Your task to perform on an android device: open app "Move to iOS" Image 0: 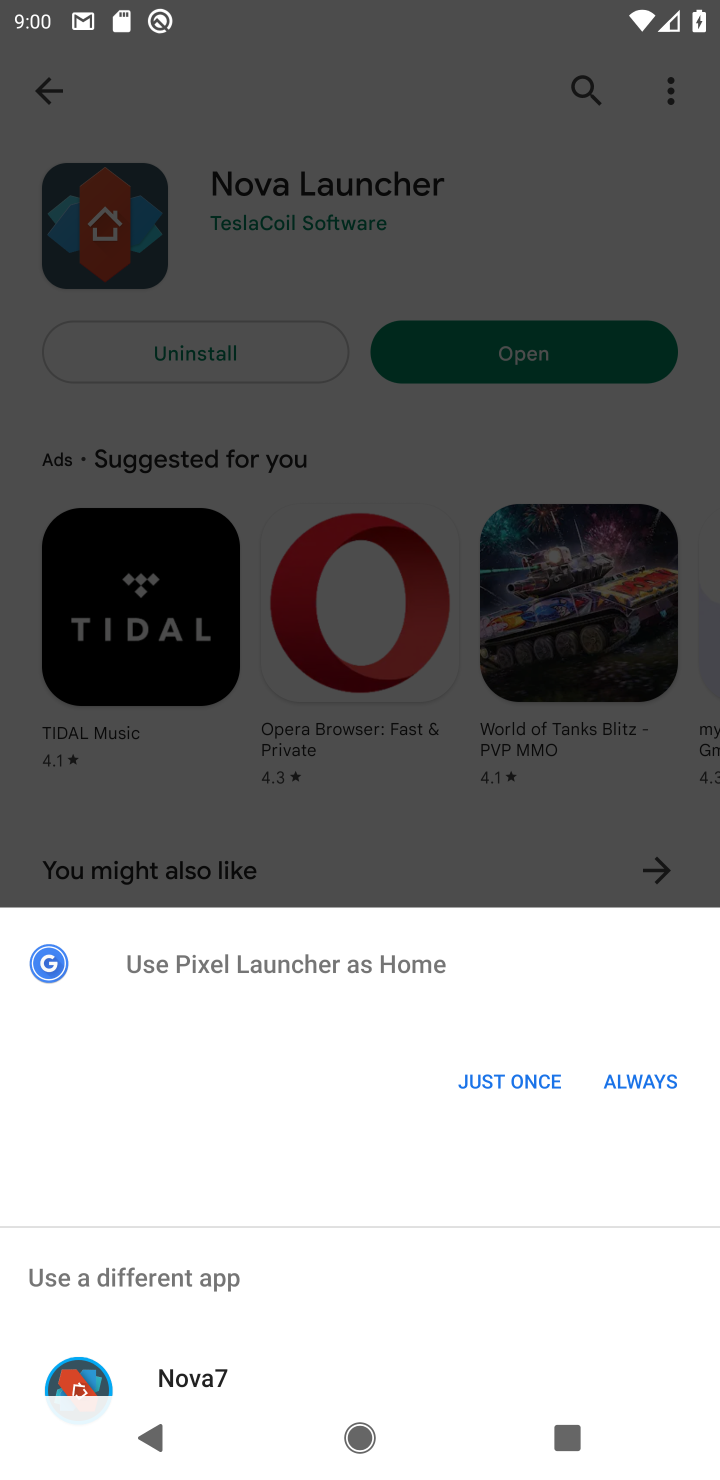
Step 0: press home button
Your task to perform on an android device: open app "Move to iOS" Image 1: 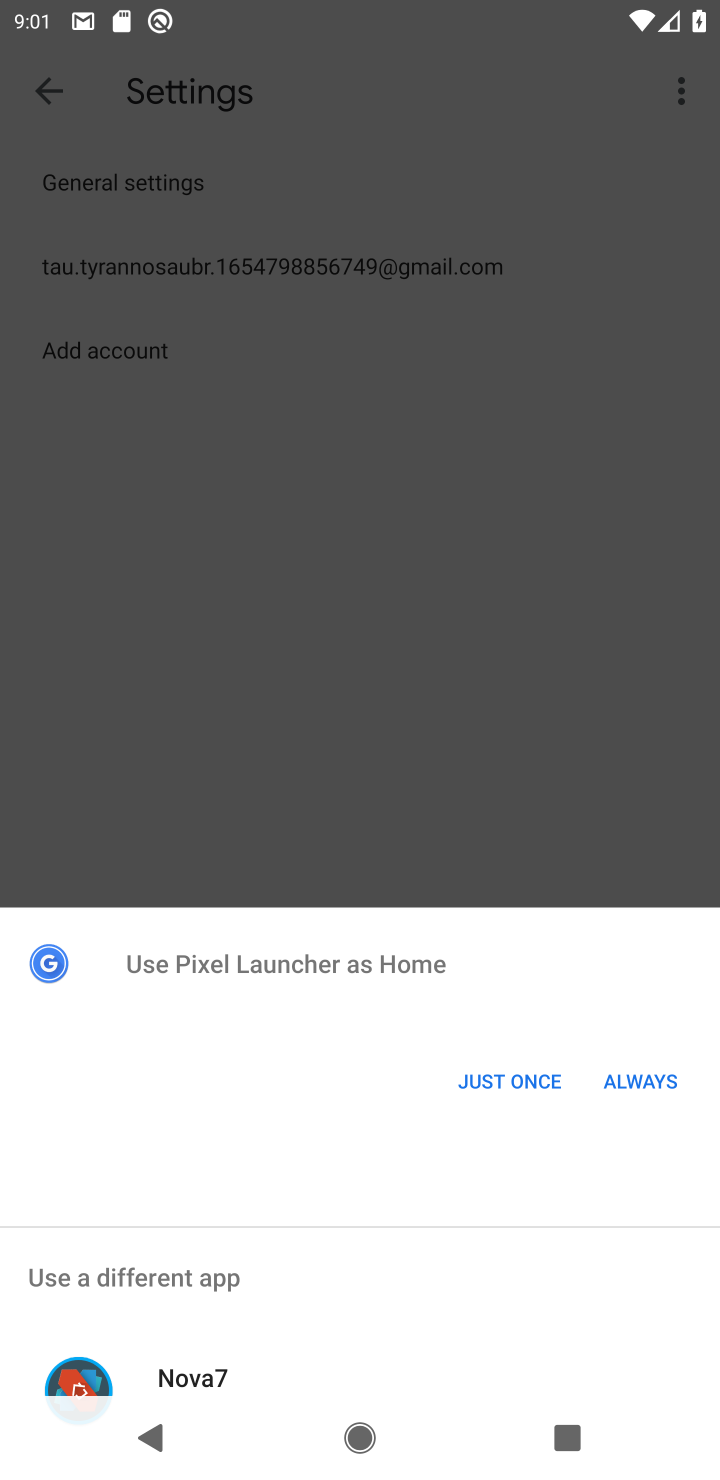
Step 1: press home button
Your task to perform on an android device: open app "Move to iOS" Image 2: 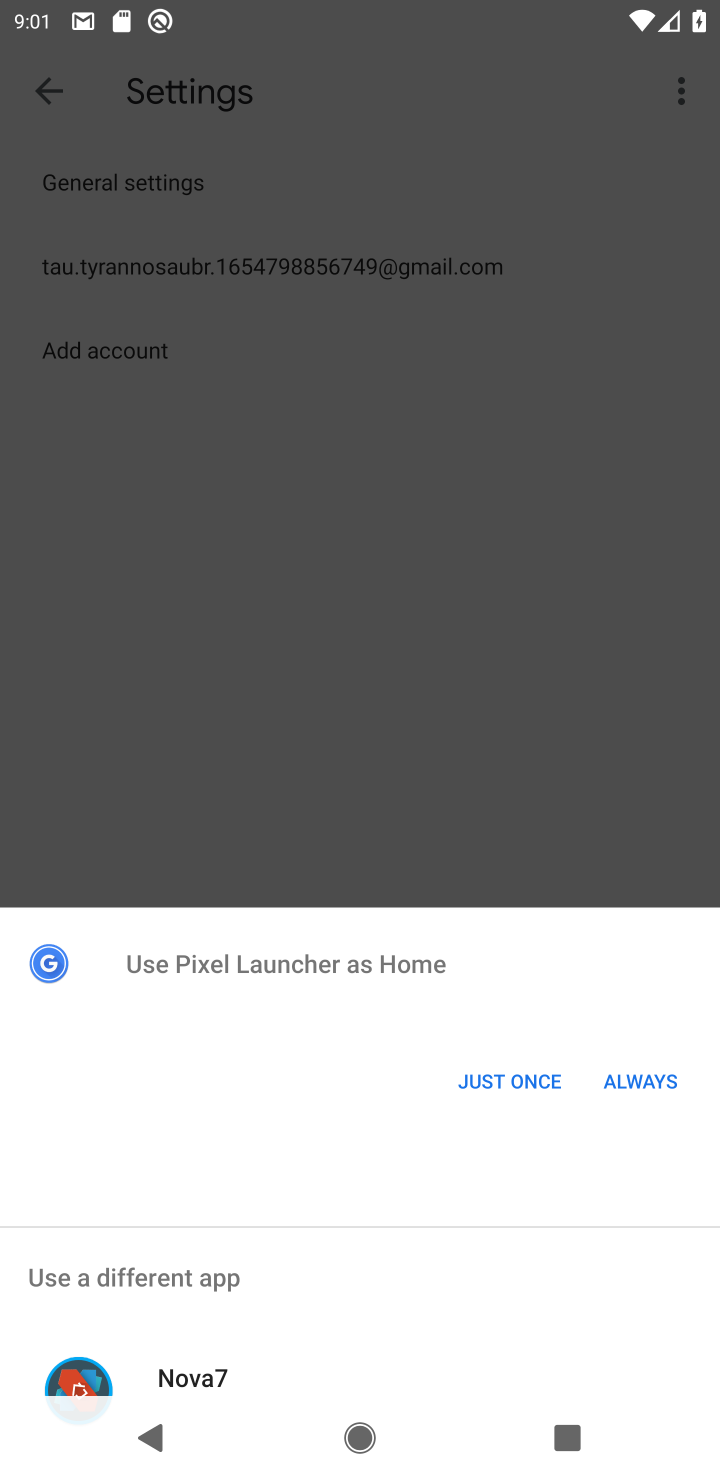
Step 2: press home button
Your task to perform on an android device: open app "Move to iOS" Image 3: 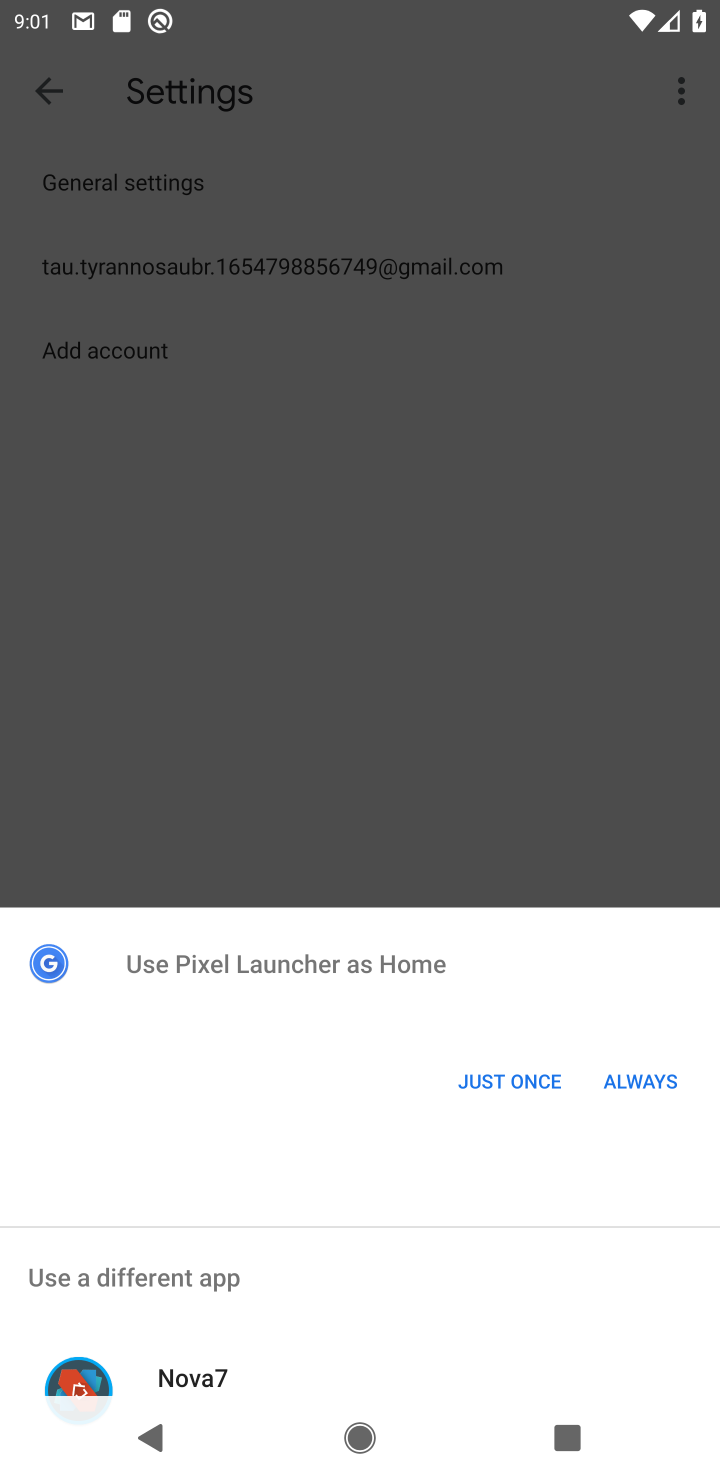
Step 3: press back button
Your task to perform on an android device: open app "Move to iOS" Image 4: 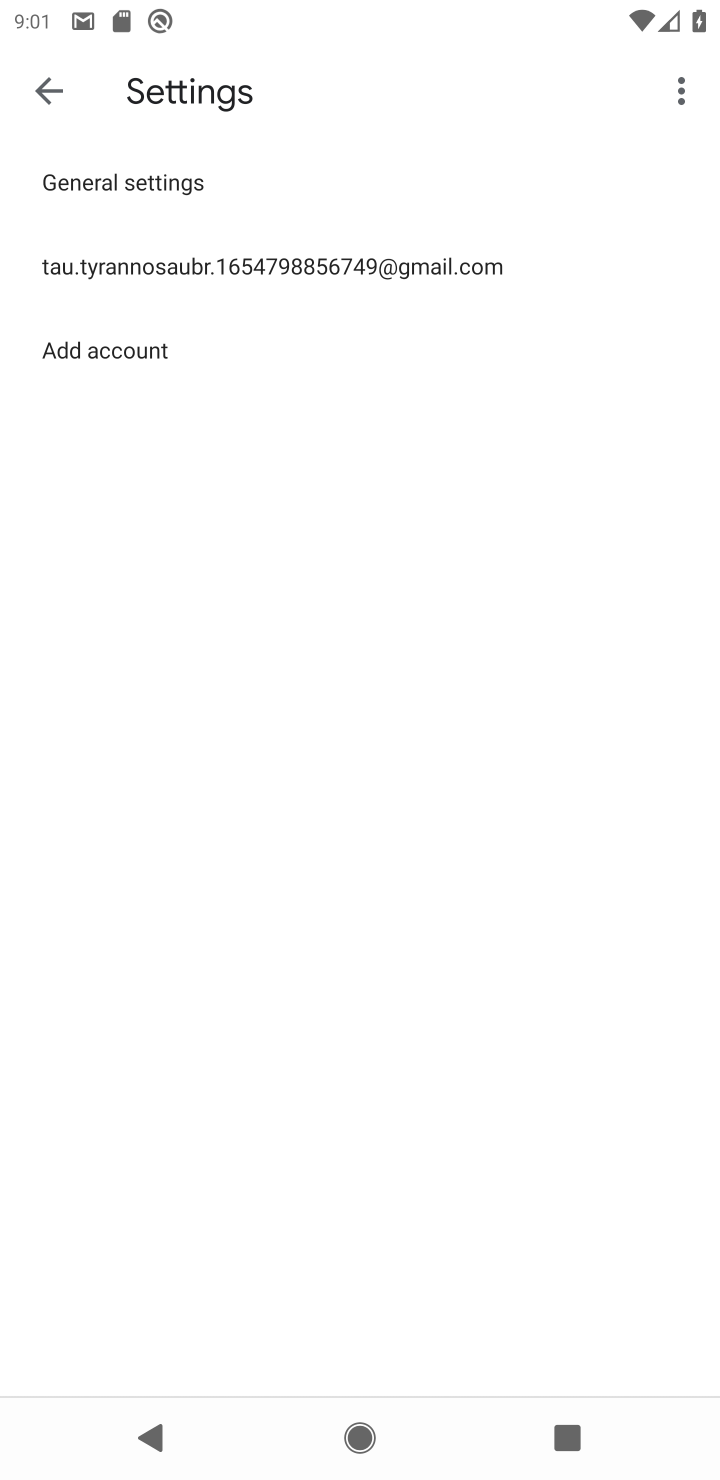
Step 4: press home button
Your task to perform on an android device: open app "Move to iOS" Image 5: 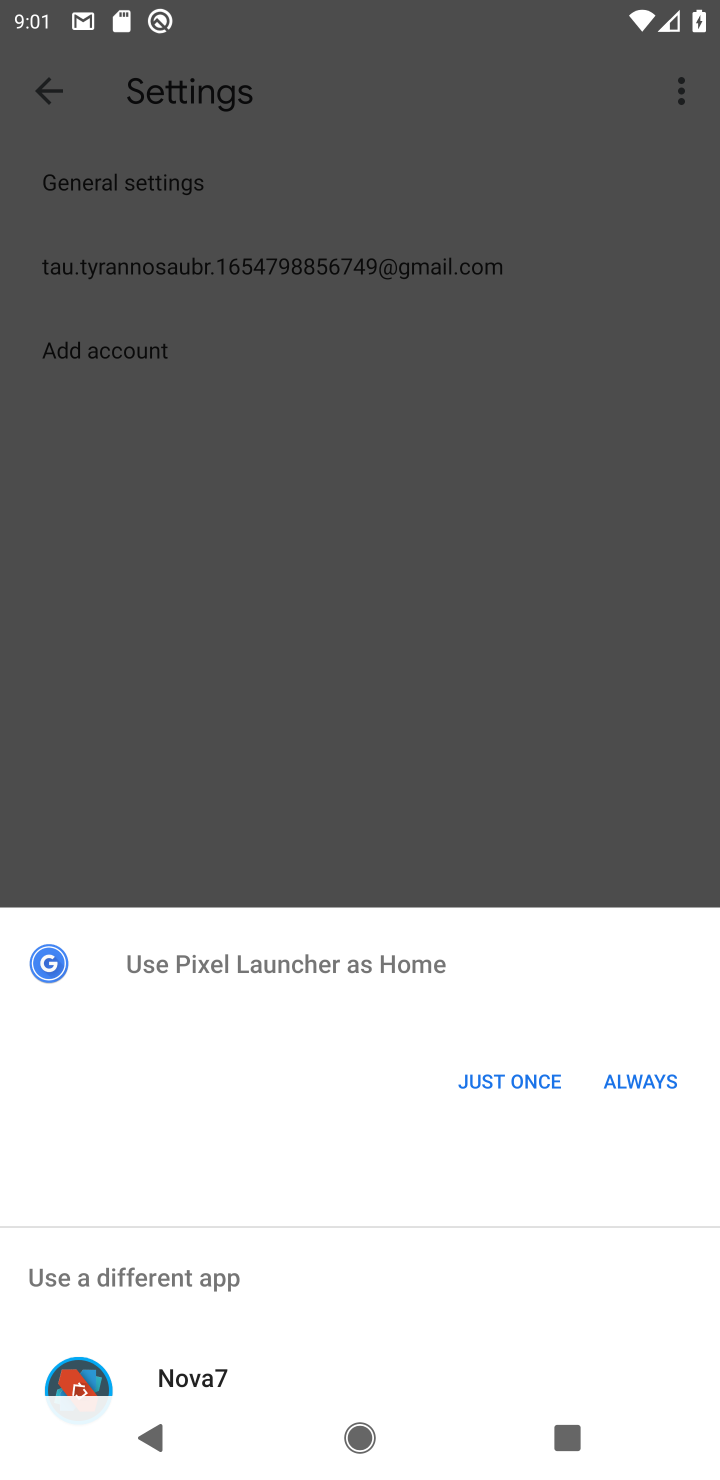
Step 5: press back button
Your task to perform on an android device: open app "Move to iOS" Image 6: 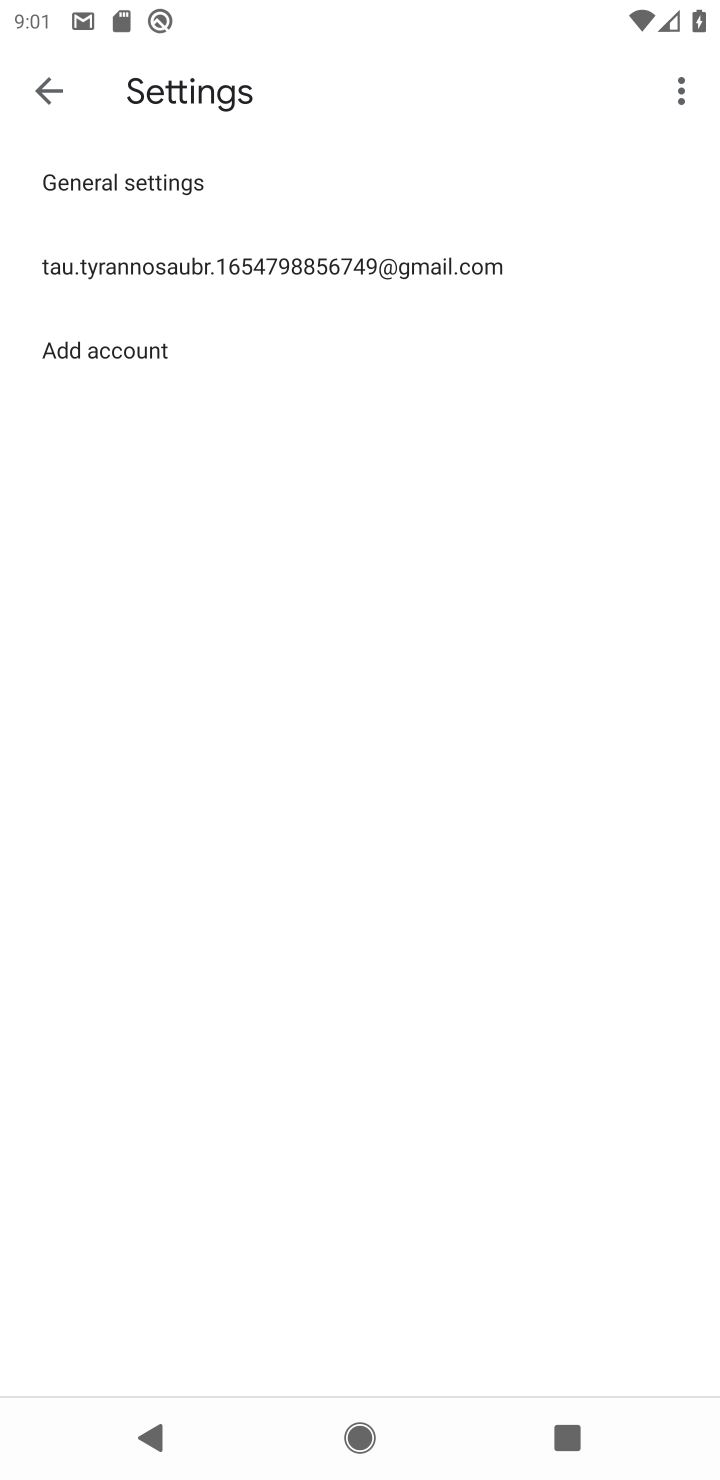
Step 6: press back button
Your task to perform on an android device: open app "Move to iOS" Image 7: 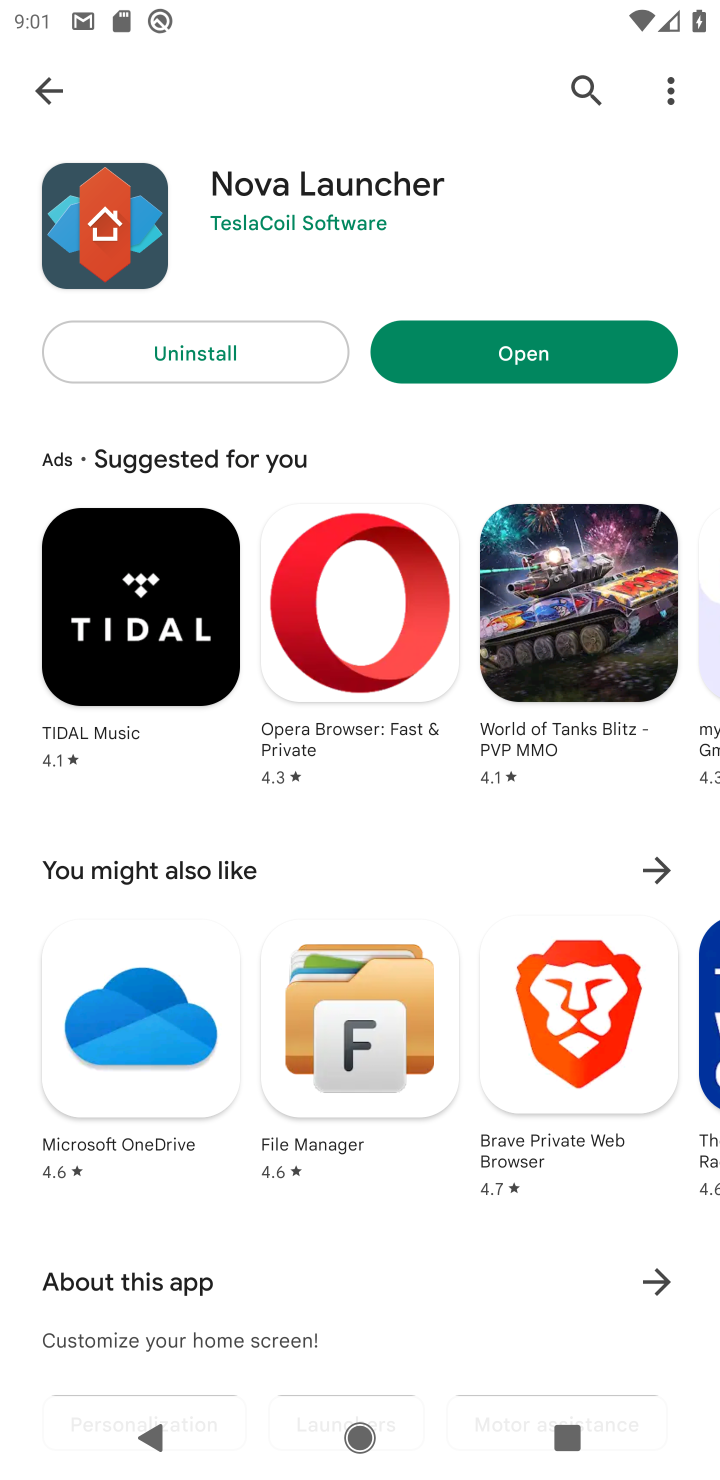
Step 7: press back button
Your task to perform on an android device: open app "Move to iOS" Image 8: 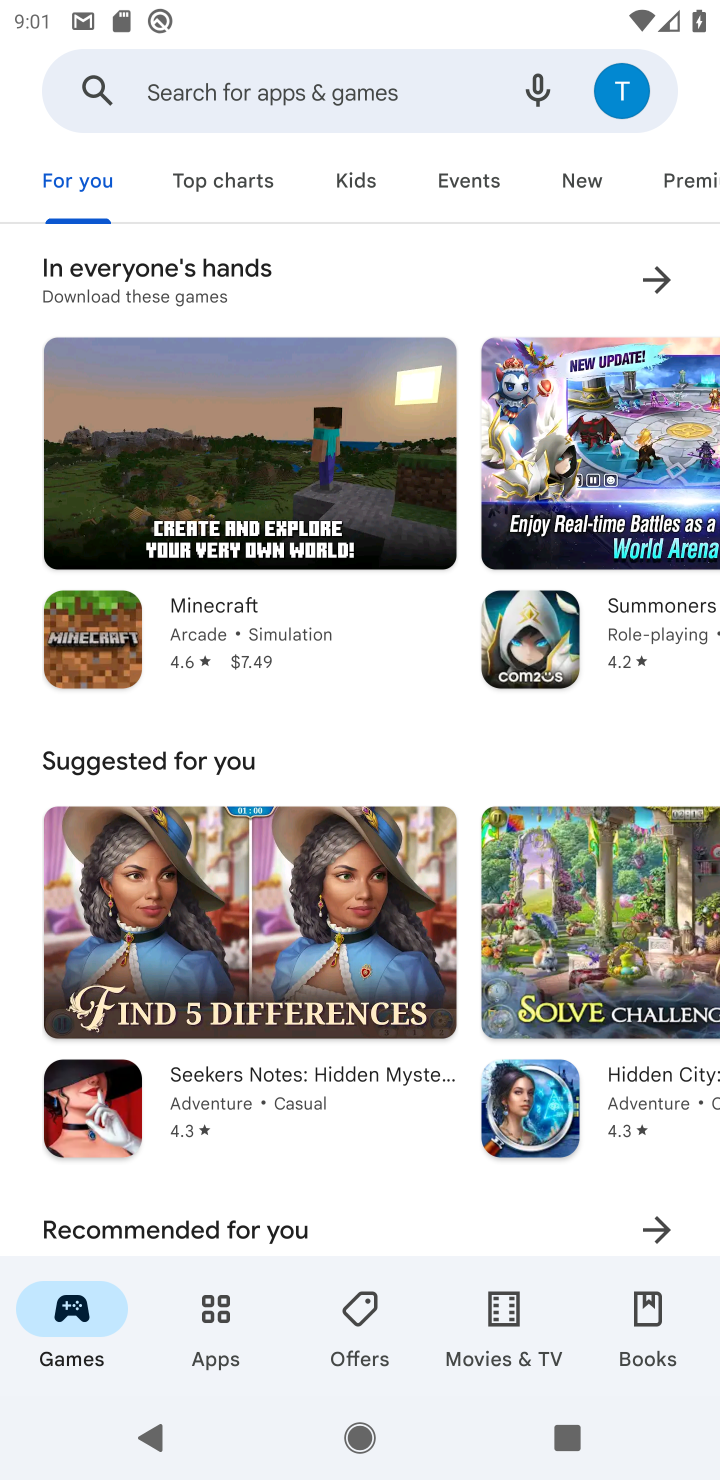
Step 8: click (396, 91)
Your task to perform on an android device: open app "Move to iOS" Image 9: 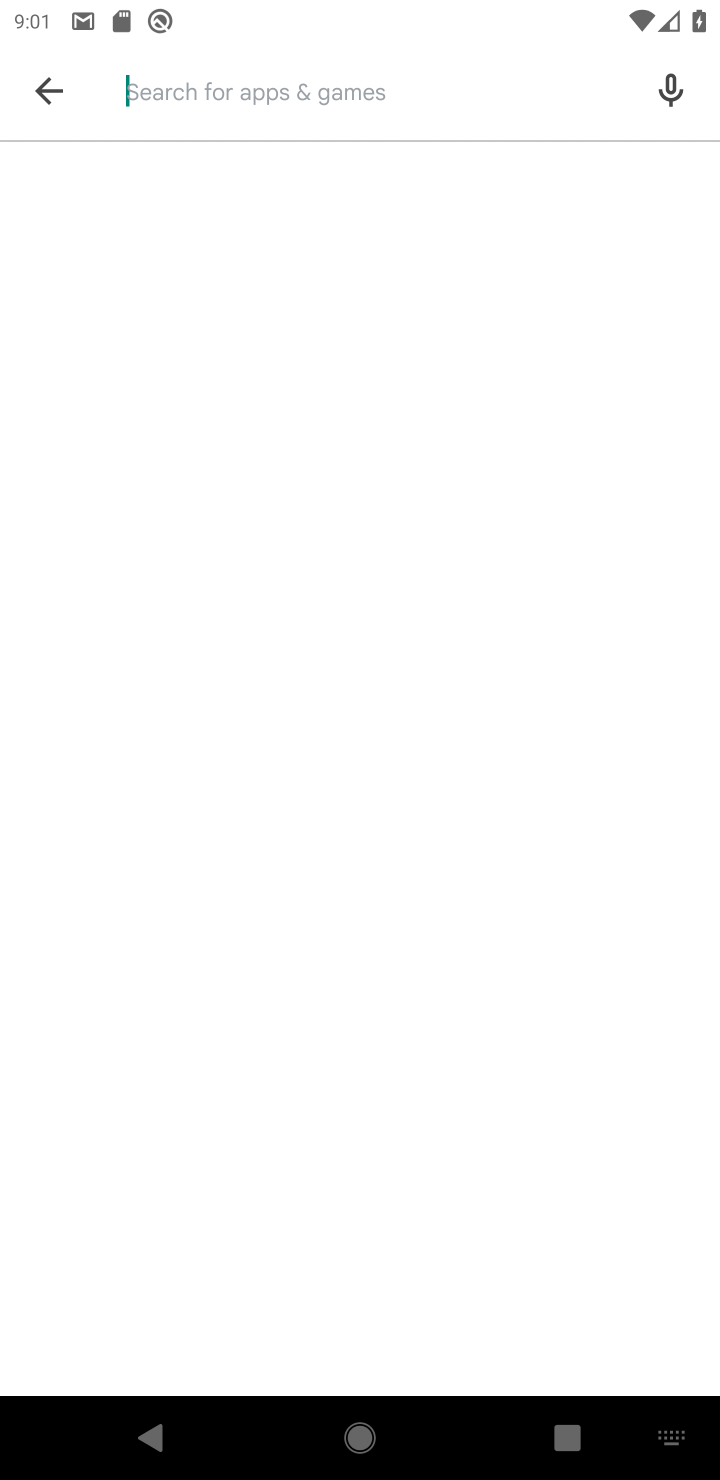
Step 9: type "move to  ios "
Your task to perform on an android device: open app "Move to iOS" Image 10: 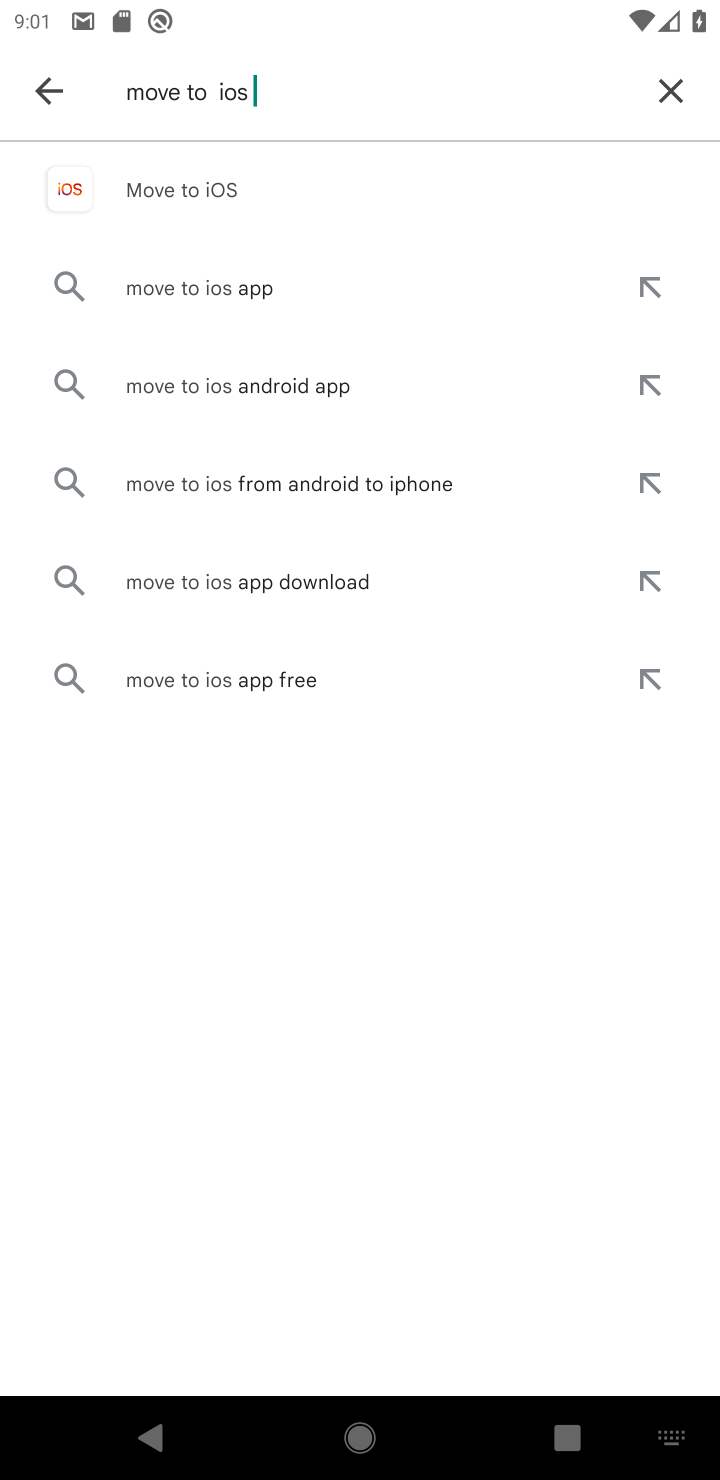
Step 10: click (203, 194)
Your task to perform on an android device: open app "Move to iOS" Image 11: 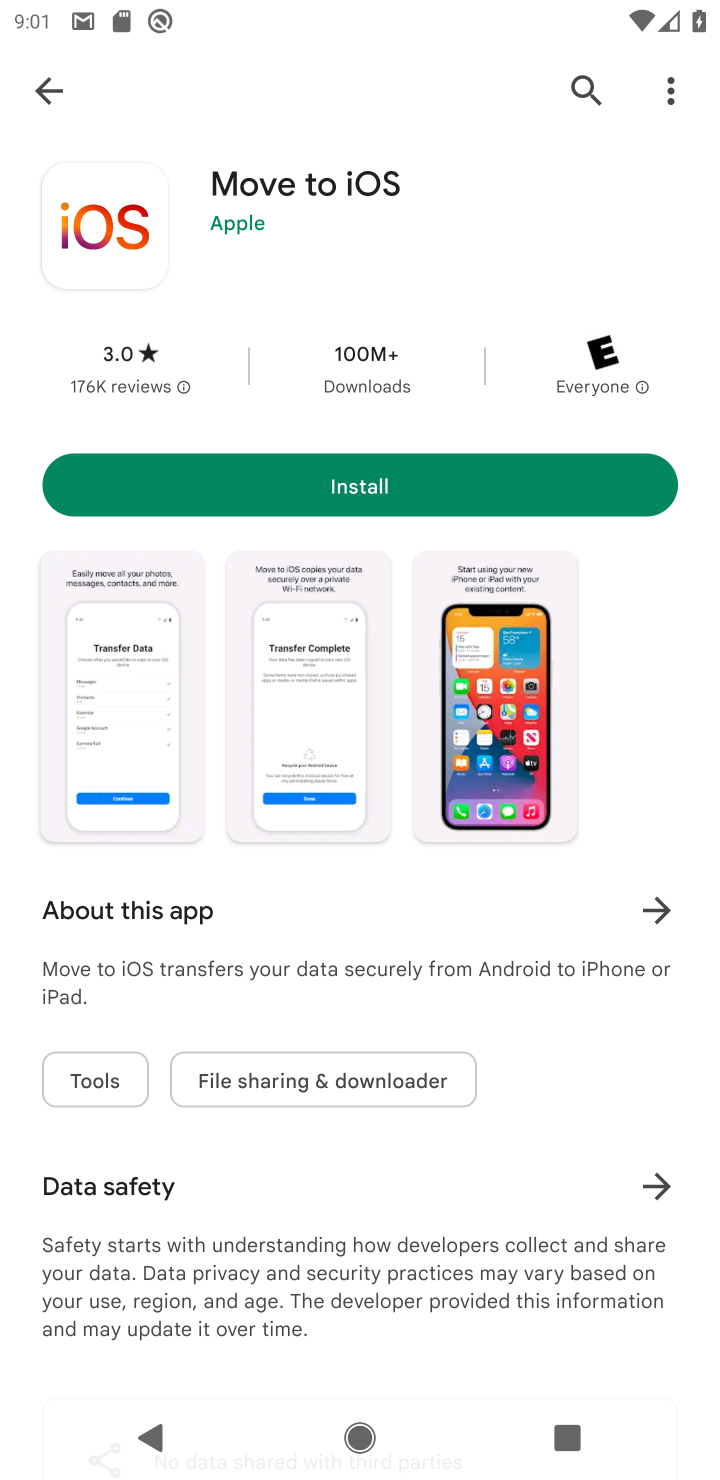
Step 11: task complete